Your task to perform on an android device: add a contact Image 0: 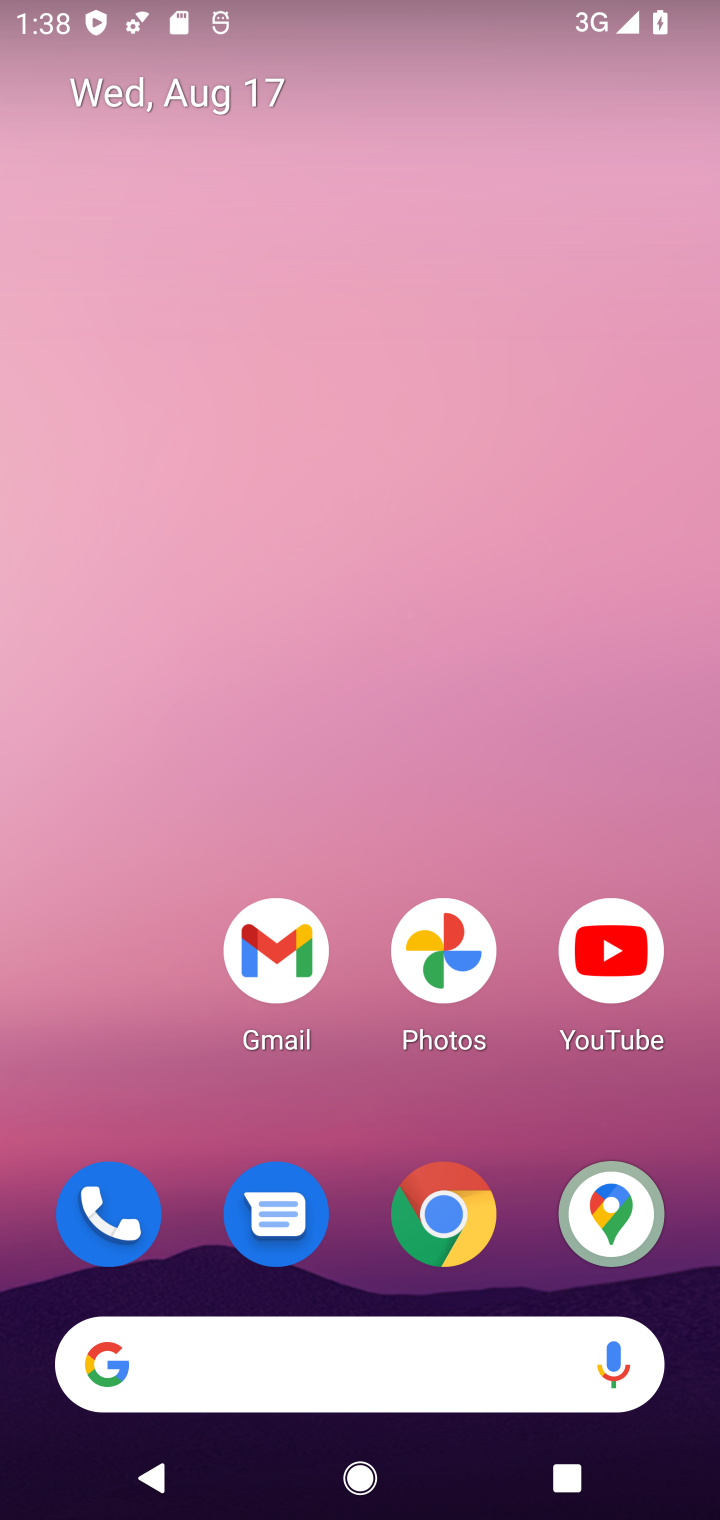
Step 0: drag from (365, 1142) to (365, 85)
Your task to perform on an android device: add a contact Image 1: 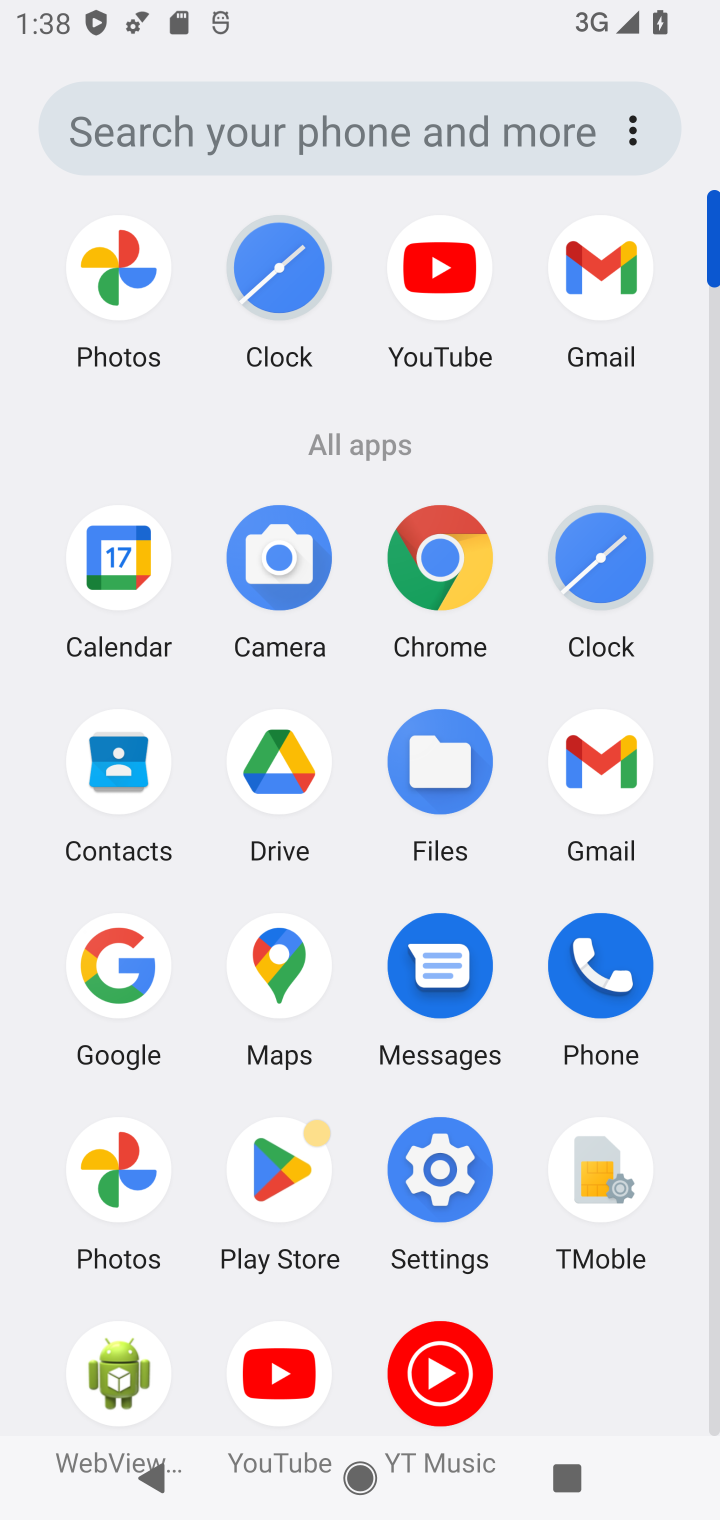
Step 1: click (124, 759)
Your task to perform on an android device: add a contact Image 2: 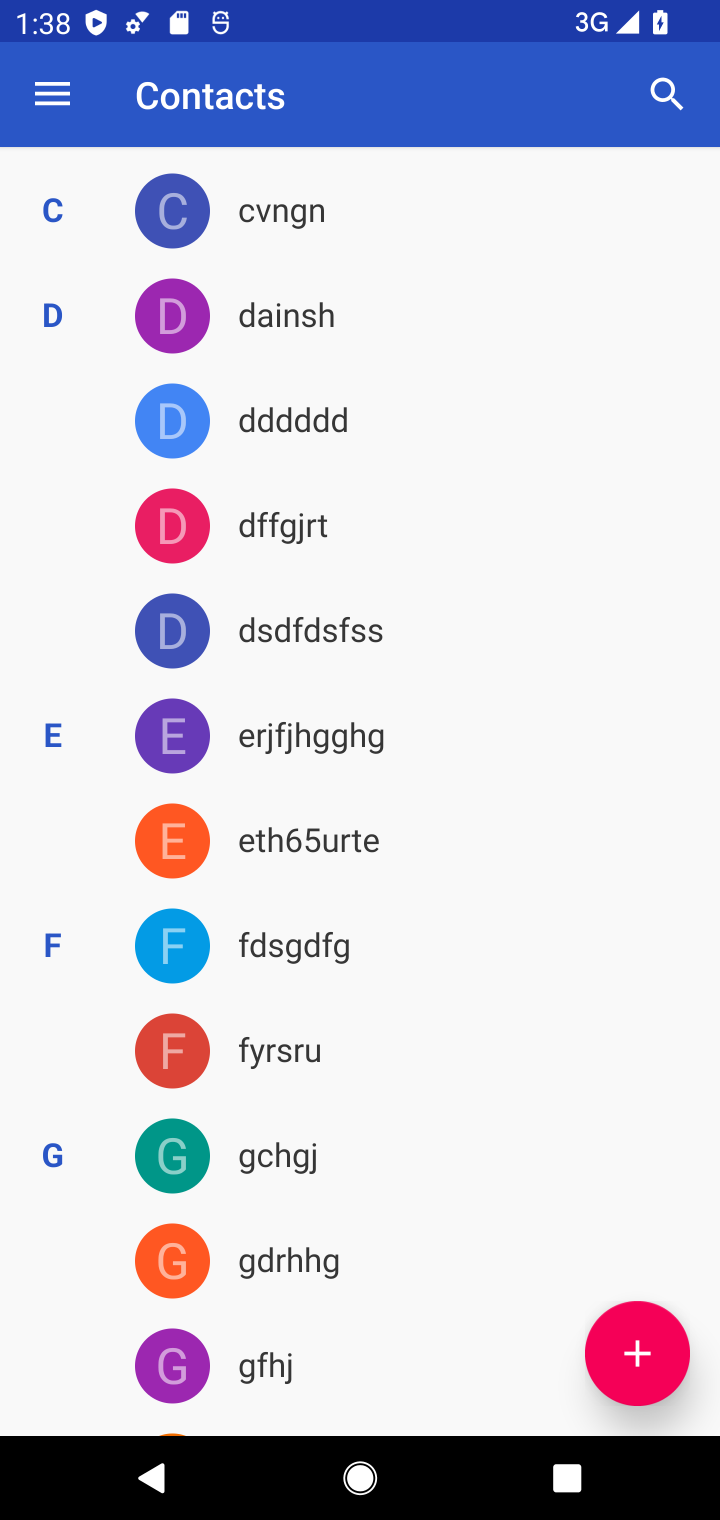
Step 2: click (646, 1367)
Your task to perform on an android device: add a contact Image 3: 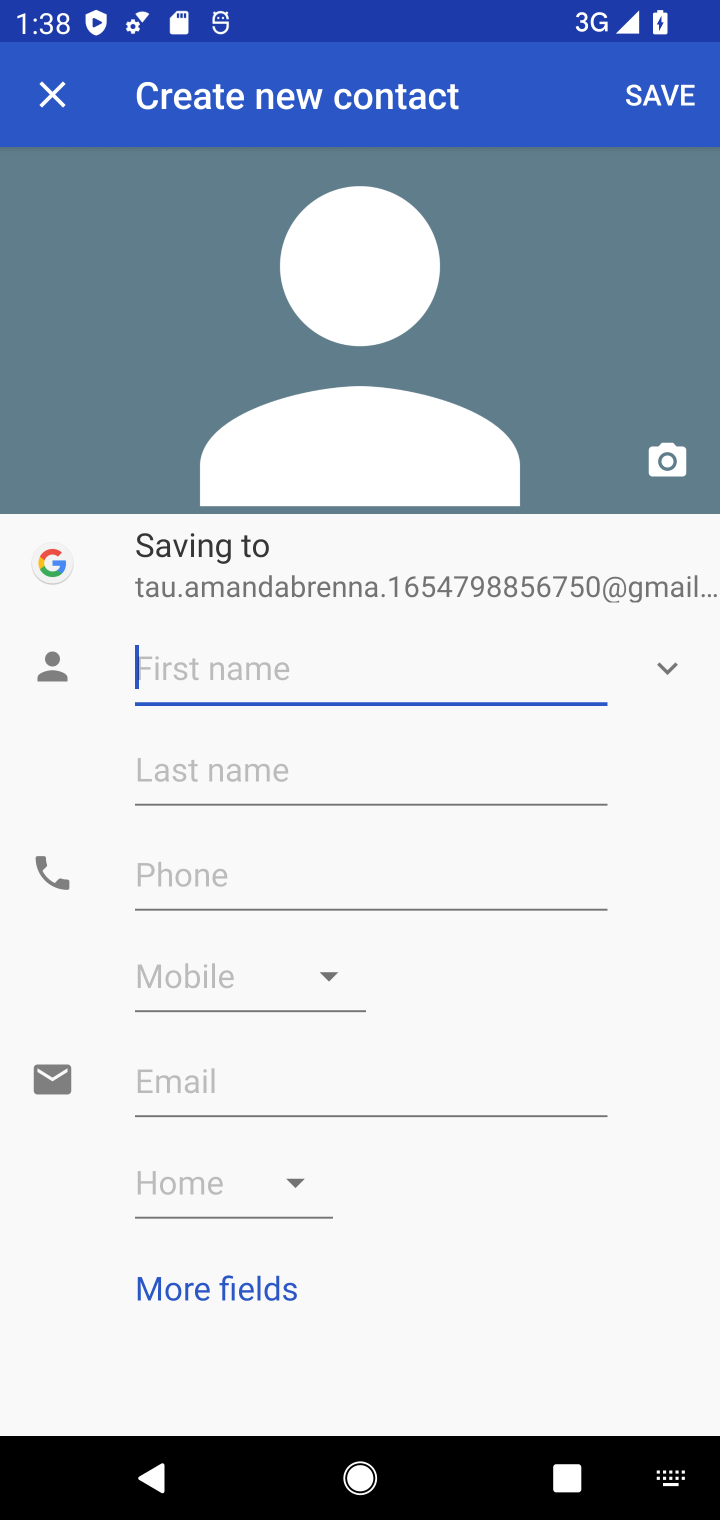
Step 3: type "kjhgf"
Your task to perform on an android device: add a contact Image 4: 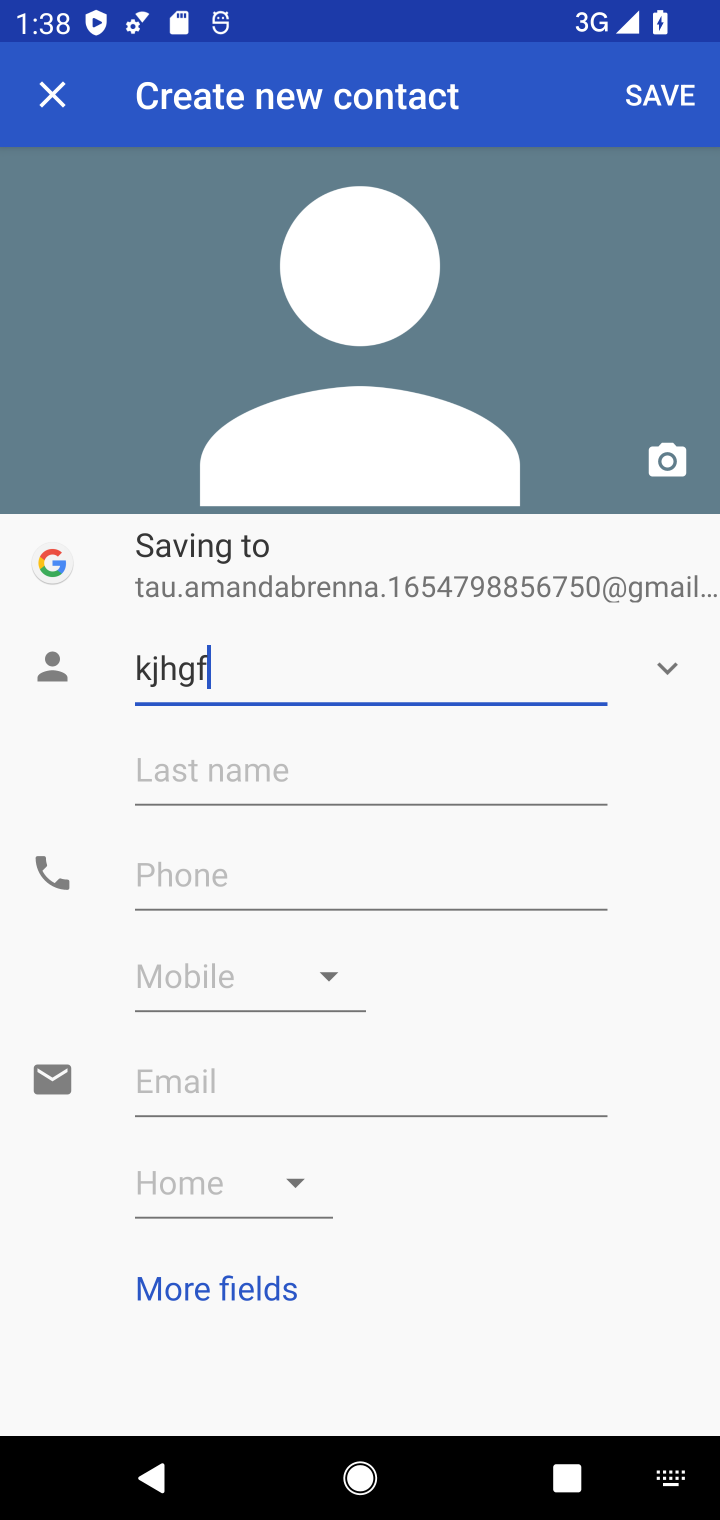
Step 4: click (215, 863)
Your task to perform on an android device: add a contact Image 5: 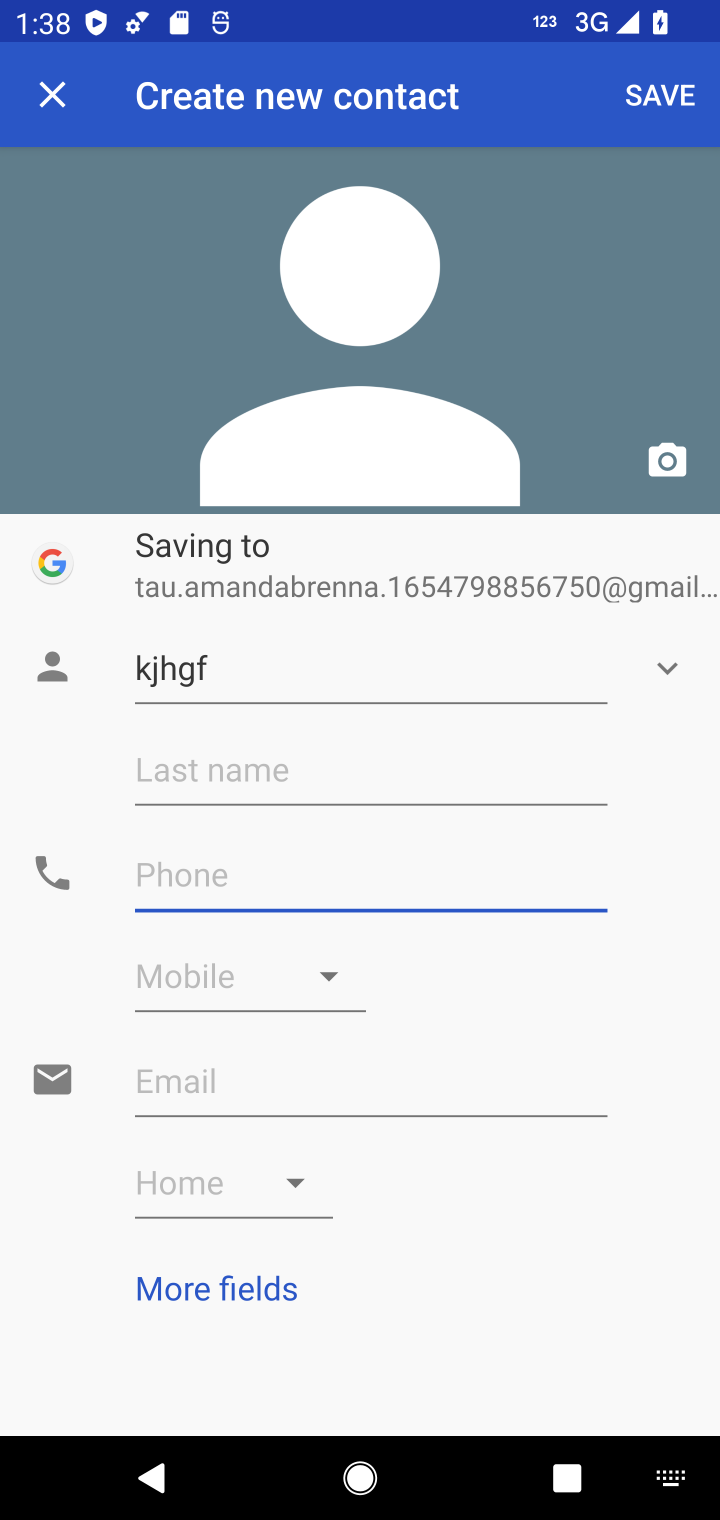
Step 5: type "876567"
Your task to perform on an android device: add a contact Image 6: 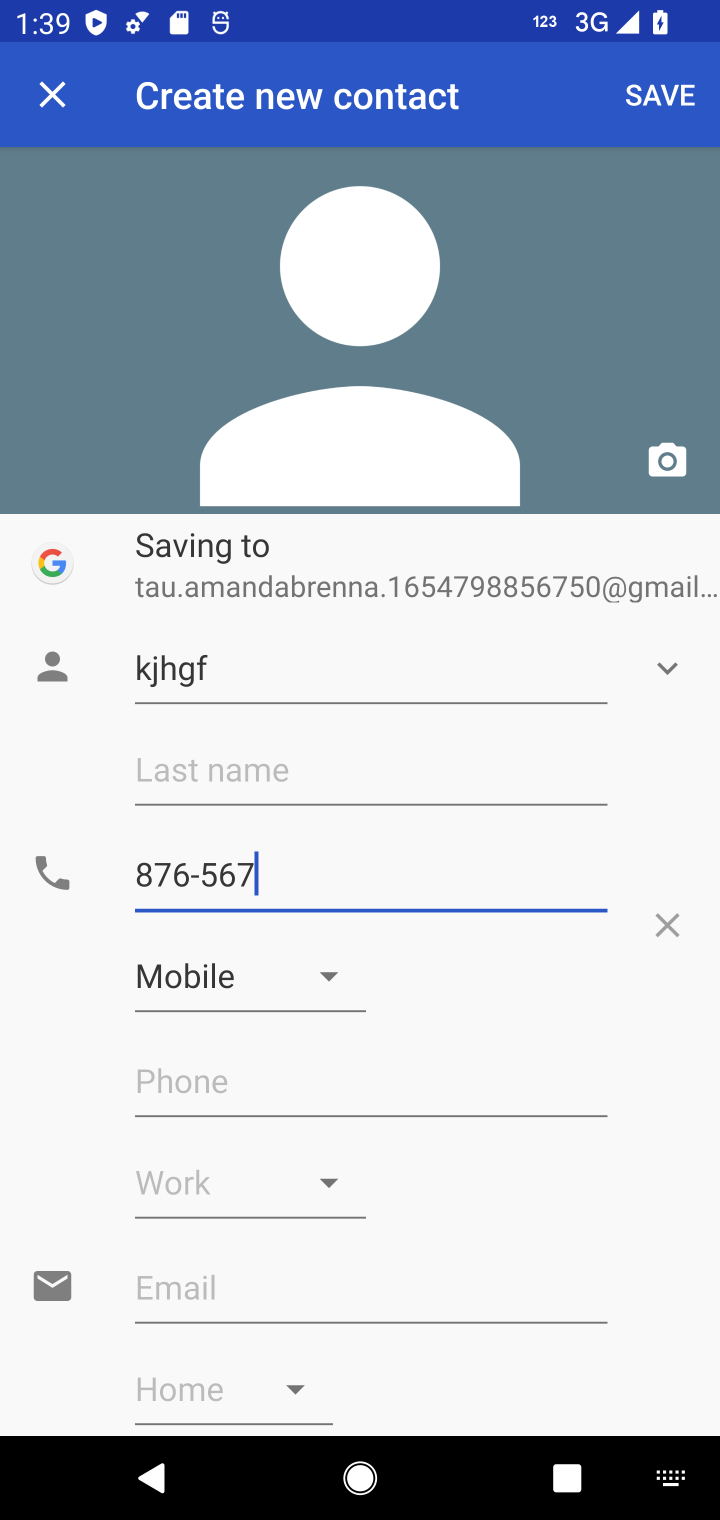
Step 6: click (664, 91)
Your task to perform on an android device: add a contact Image 7: 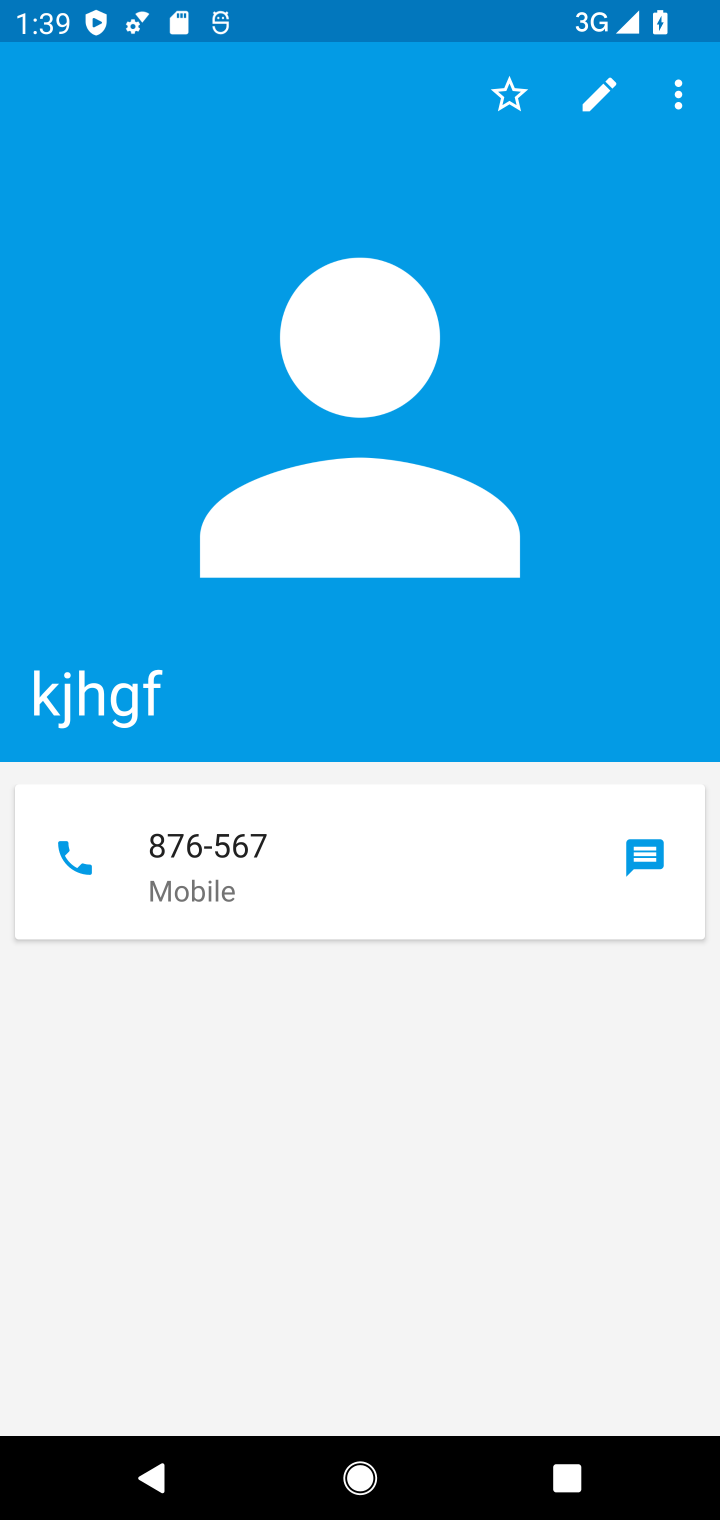
Step 7: task complete